Your task to perform on an android device: allow cookies in the chrome app Image 0: 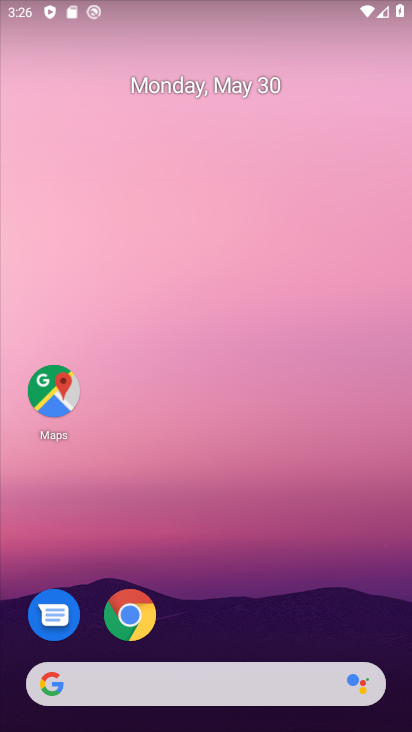
Step 0: click (128, 614)
Your task to perform on an android device: allow cookies in the chrome app Image 1: 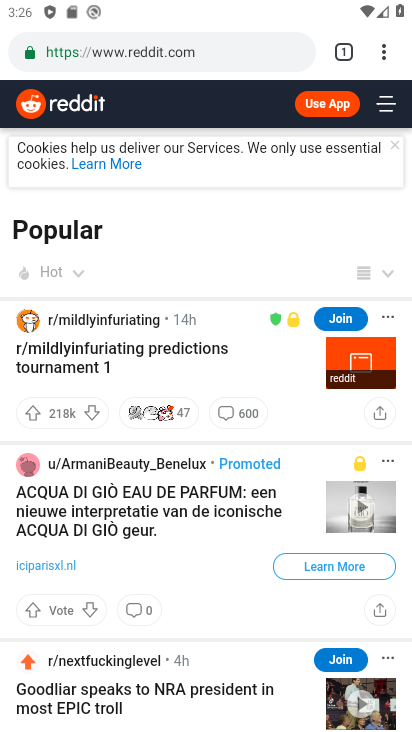
Step 1: click (383, 55)
Your task to perform on an android device: allow cookies in the chrome app Image 2: 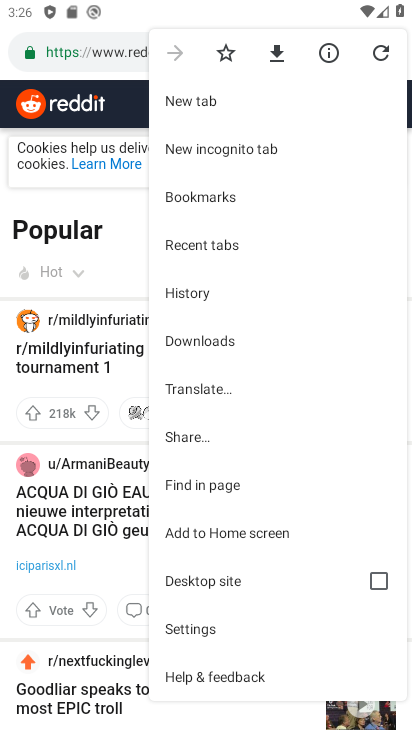
Step 2: drag from (221, 518) to (222, 373)
Your task to perform on an android device: allow cookies in the chrome app Image 3: 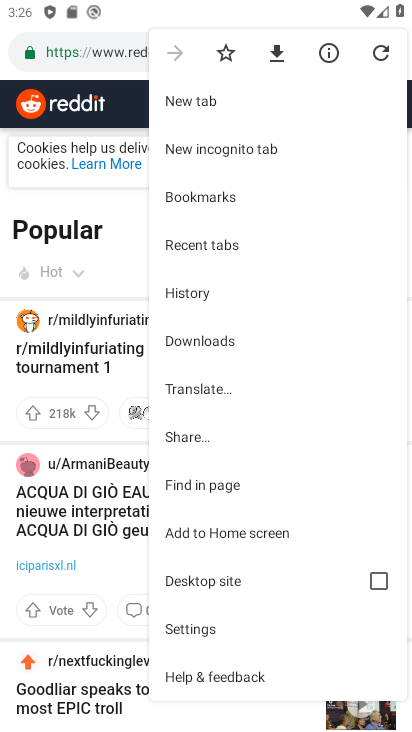
Step 3: click (213, 625)
Your task to perform on an android device: allow cookies in the chrome app Image 4: 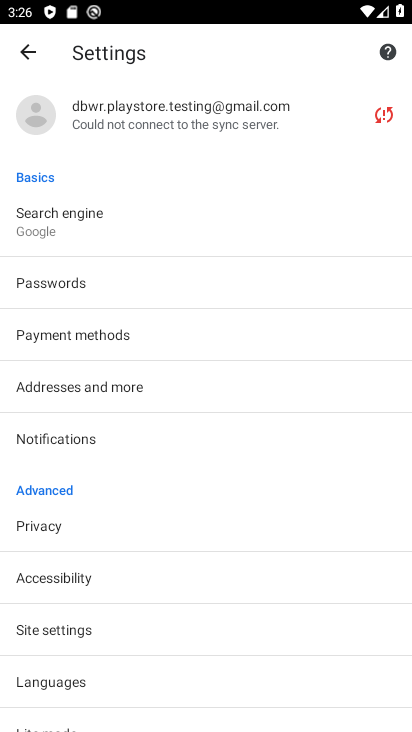
Step 4: drag from (113, 484) to (148, 389)
Your task to perform on an android device: allow cookies in the chrome app Image 5: 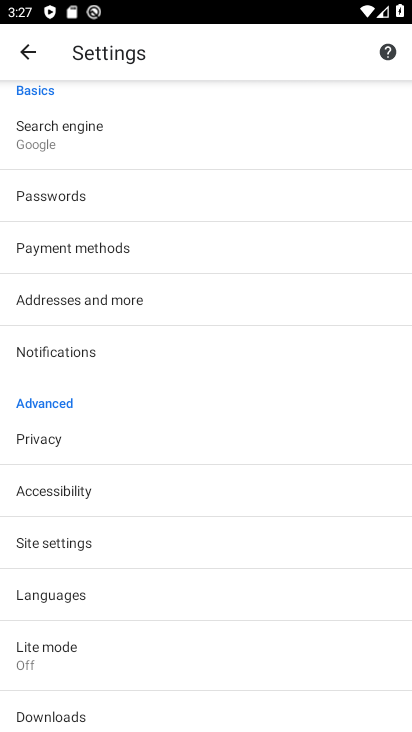
Step 5: click (75, 548)
Your task to perform on an android device: allow cookies in the chrome app Image 6: 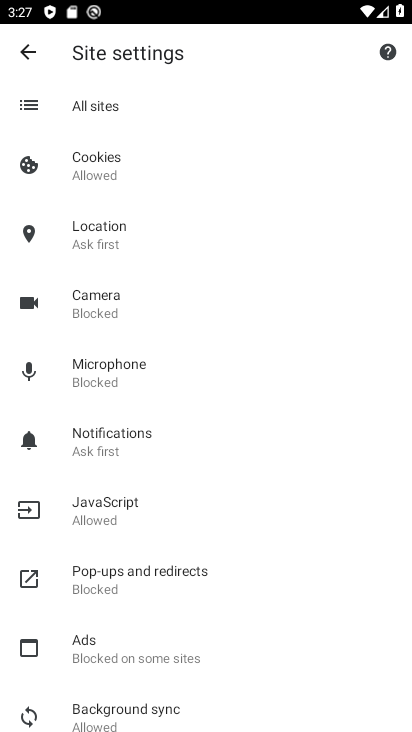
Step 6: click (97, 166)
Your task to perform on an android device: allow cookies in the chrome app Image 7: 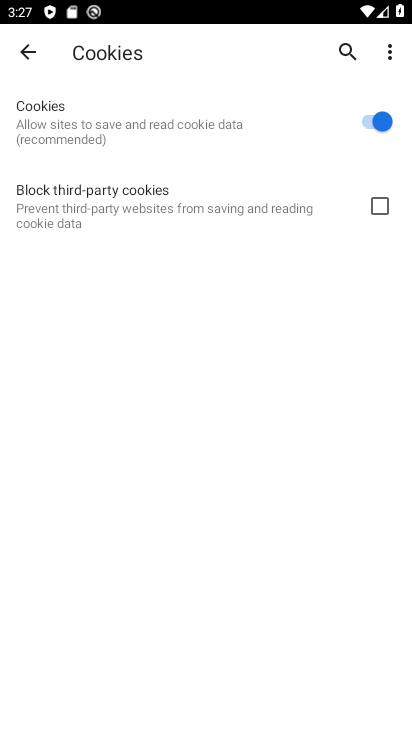
Step 7: click (381, 204)
Your task to perform on an android device: allow cookies in the chrome app Image 8: 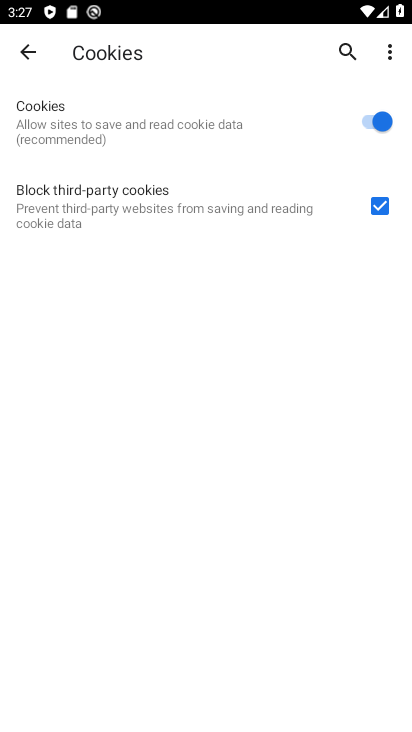
Step 8: task complete